Your task to perform on an android device: allow cookies in the chrome app Image 0: 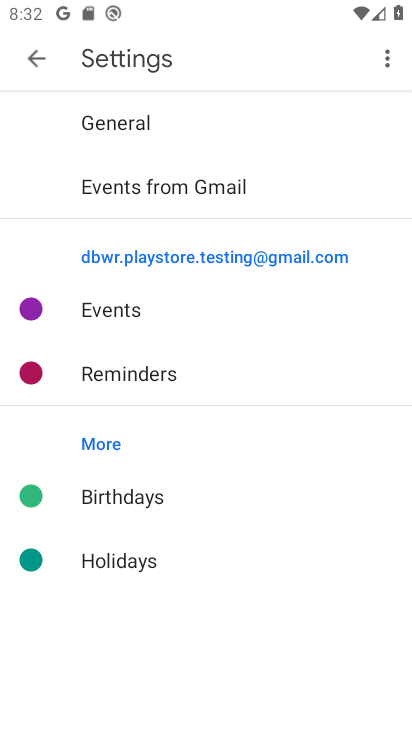
Step 0: click (317, 636)
Your task to perform on an android device: allow cookies in the chrome app Image 1: 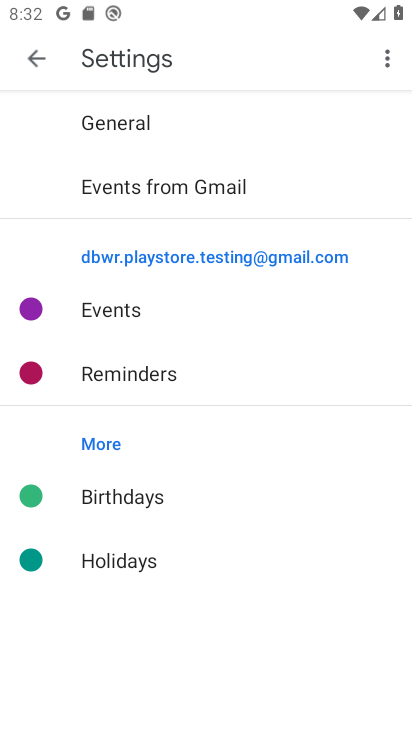
Step 1: press back button
Your task to perform on an android device: allow cookies in the chrome app Image 2: 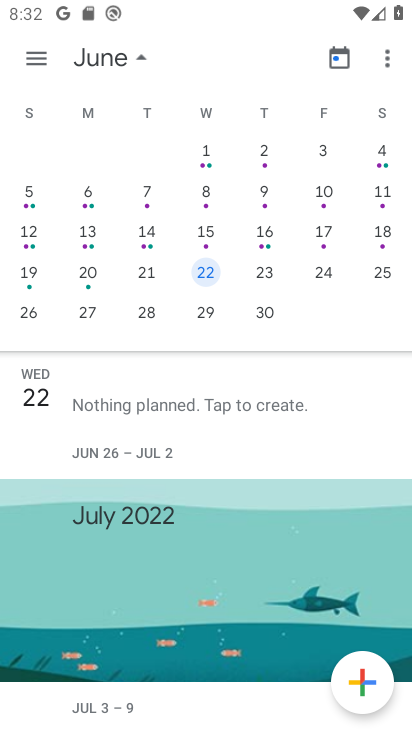
Step 2: press home button
Your task to perform on an android device: allow cookies in the chrome app Image 3: 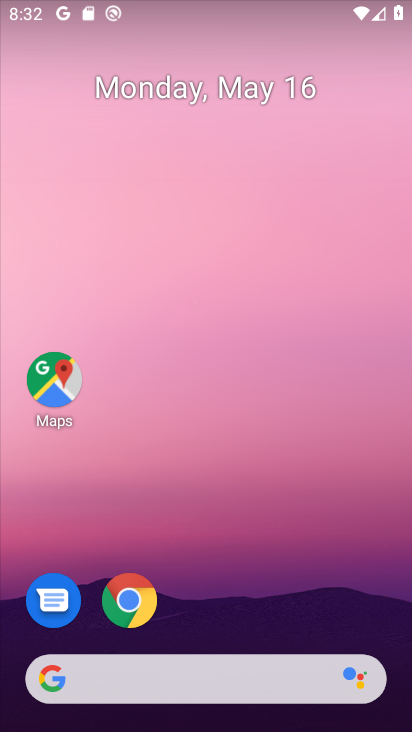
Step 3: drag from (205, 675) to (136, 90)
Your task to perform on an android device: allow cookies in the chrome app Image 4: 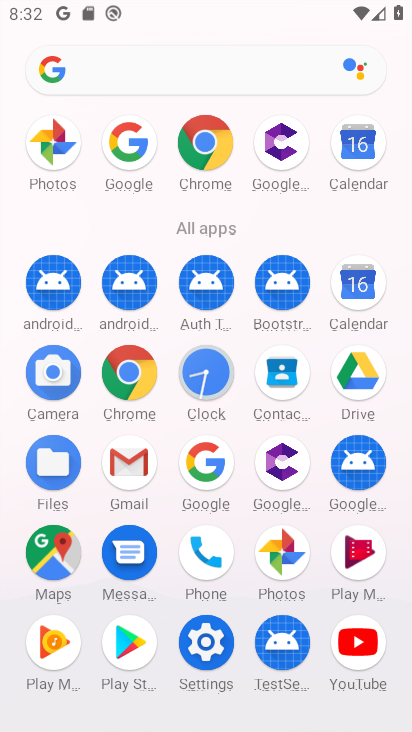
Step 4: click (200, 150)
Your task to perform on an android device: allow cookies in the chrome app Image 5: 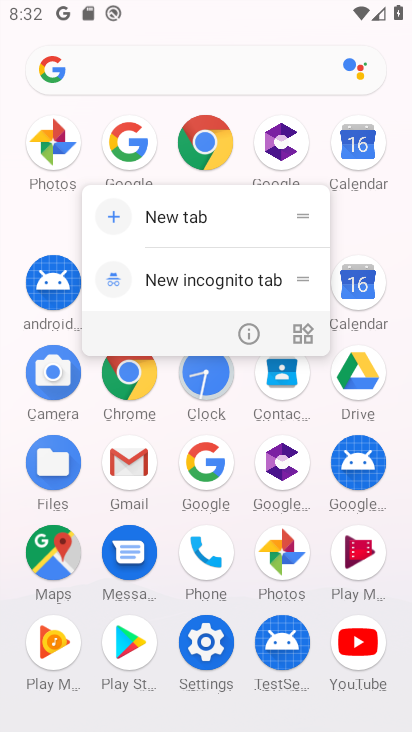
Step 5: click (200, 153)
Your task to perform on an android device: allow cookies in the chrome app Image 6: 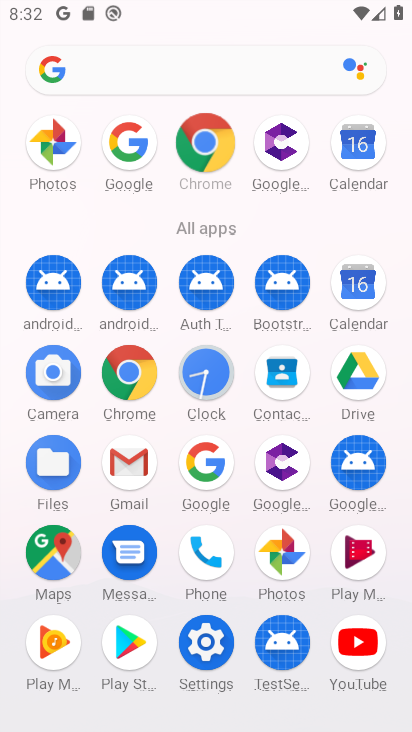
Step 6: click (200, 153)
Your task to perform on an android device: allow cookies in the chrome app Image 7: 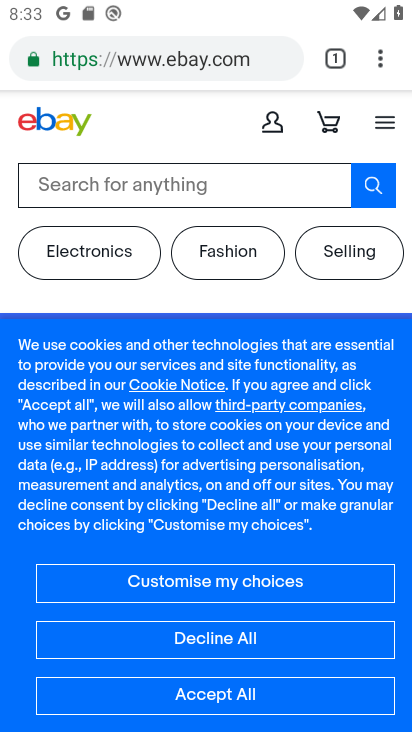
Step 7: click (382, 63)
Your task to perform on an android device: allow cookies in the chrome app Image 8: 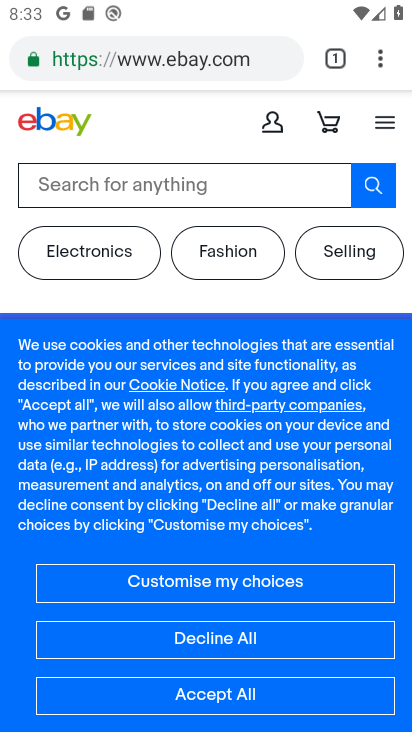
Step 8: click (382, 63)
Your task to perform on an android device: allow cookies in the chrome app Image 9: 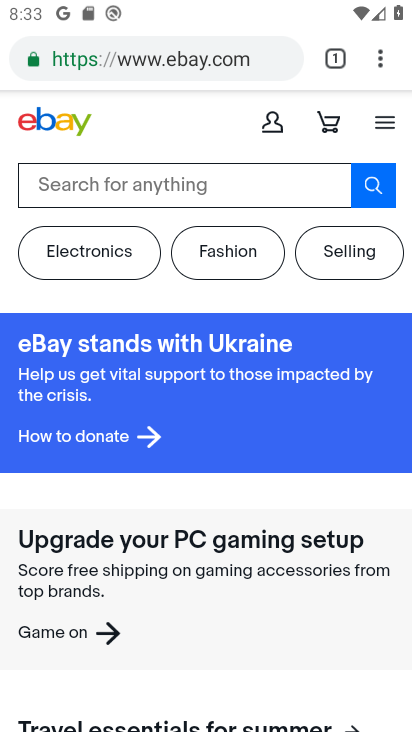
Step 9: click (377, 59)
Your task to perform on an android device: allow cookies in the chrome app Image 10: 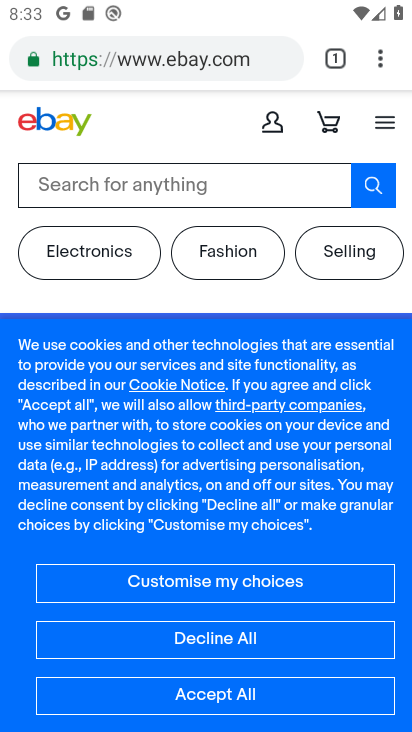
Step 10: drag from (377, 55) to (157, 16)
Your task to perform on an android device: allow cookies in the chrome app Image 11: 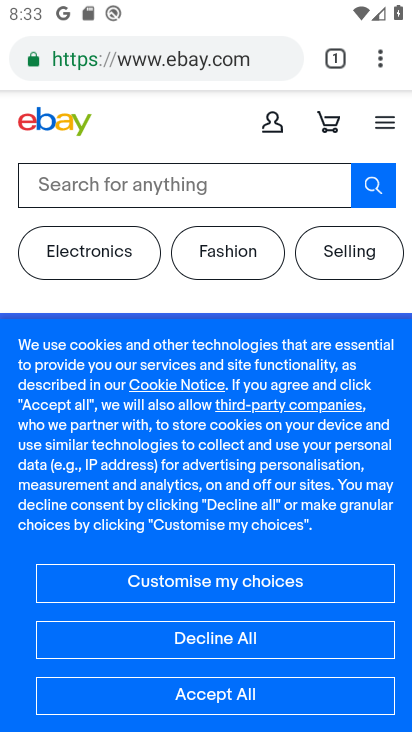
Step 11: drag from (242, 581) to (209, 188)
Your task to perform on an android device: allow cookies in the chrome app Image 12: 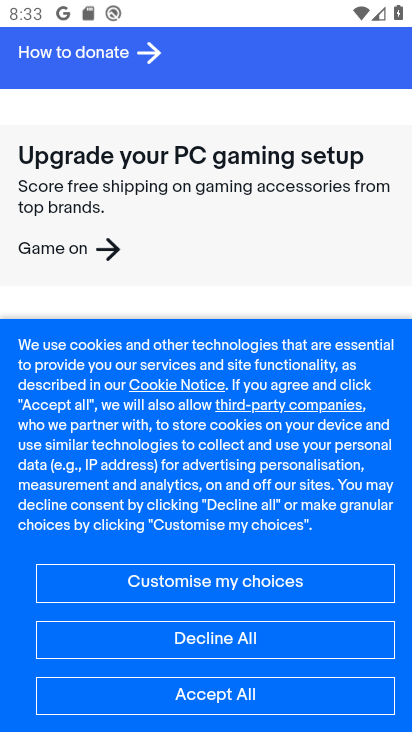
Step 12: click (372, 49)
Your task to perform on an android device: allow cookies in the chrome app Image 13: 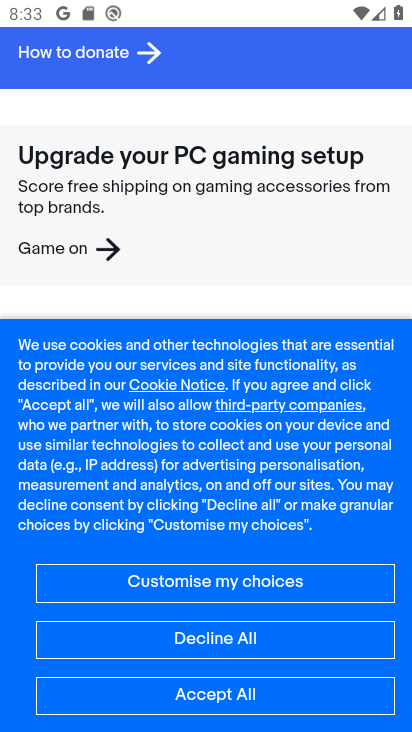
Step 13: click (311, 402)
Your task to perform on an android device: allow cookies in the chrome app Image 14: 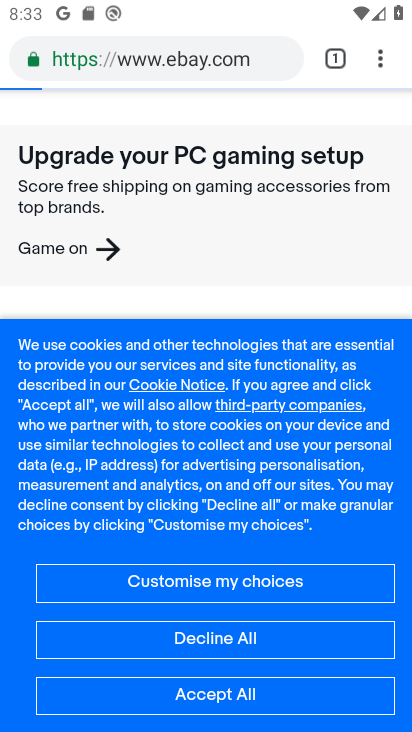
Step 14: click (236, 501)
Your task to perform on an android device: allow cookies in the chrome app Image 15: 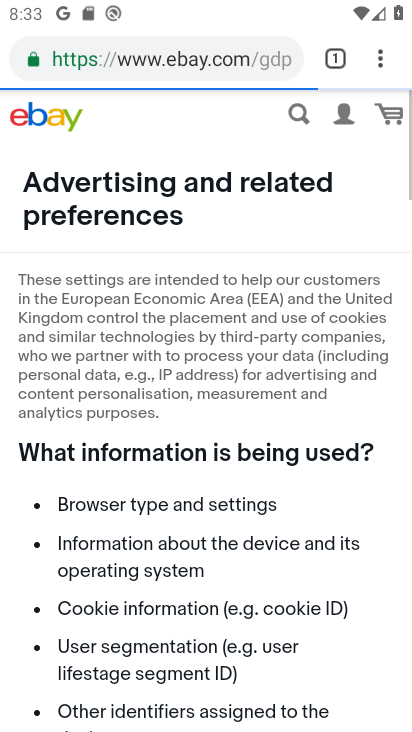
Step 15: click (374, 53)
Your task to perform on an android device: allow cookies in the chrome app Image 16: 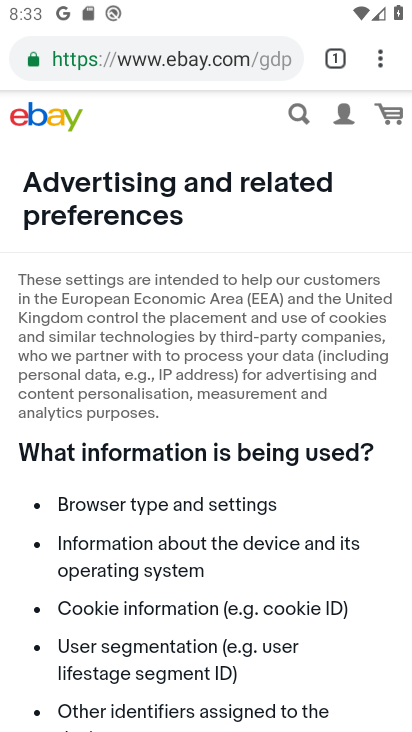
Step 16: drag from (383, 63) to (302, 439)
Your task to perform on an android device: allow cookies in the chrome app Image 17: 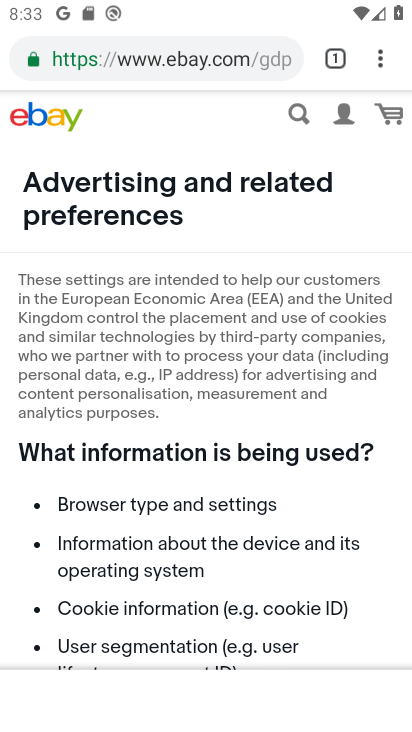
Step 17: drag from (292, 578) to (208, 3)
Your task to perform on an android device: allow cookies in the chrome app Image 18: 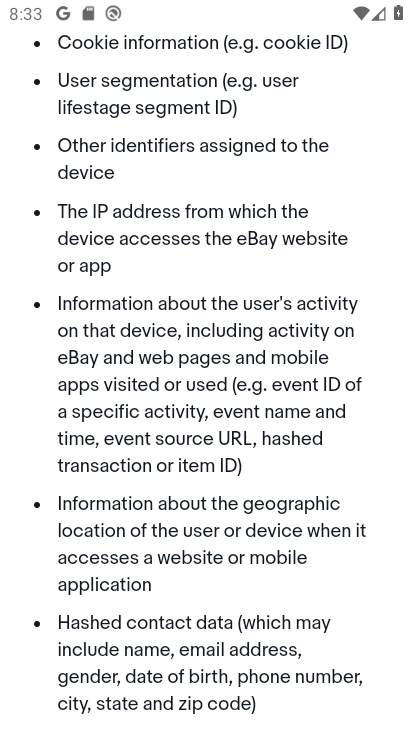
Step 18: press back button
Your task to perform on an android device: allow cookies in the chrome app Image 19: 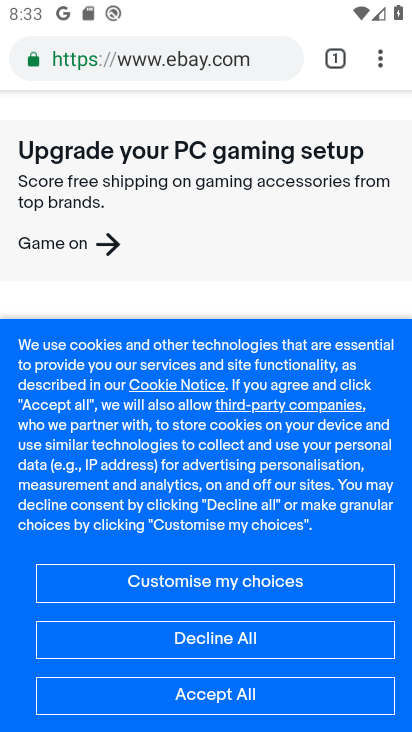
Step 19: click (387, 50)
Your task to perform on an android device: allow cookies in the chrome app Image 20: 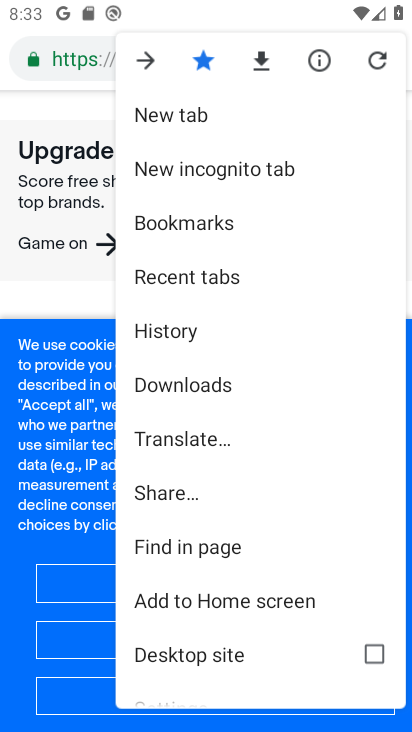
Step 20: drag from (168, 594) to (160, 135)
Your task to perform on an android device: allow cookies in the chrome app Image 21: 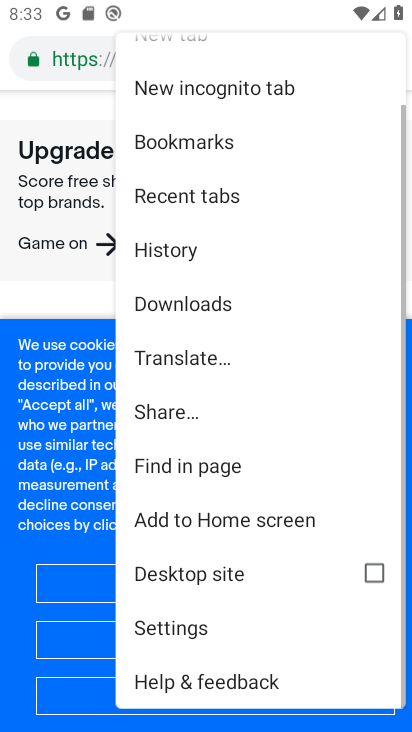
Step 21: click (169, 617)
Your task to perform on an android device: allow cookies in the chrome app Image 22: 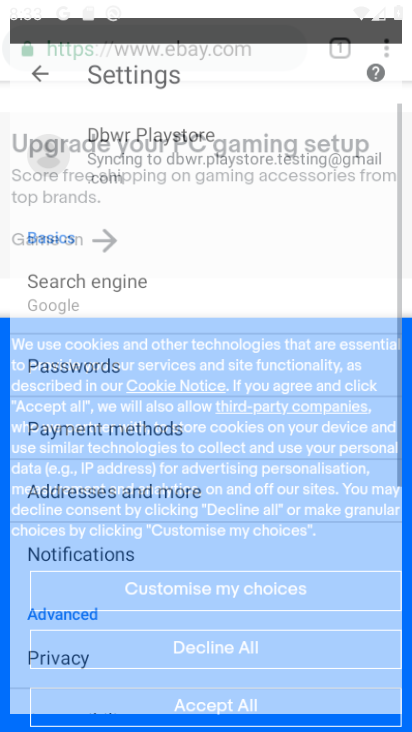
Step 22: click (170, 617)
Your task to perform on an android device: allow cookies in the chrome app Image 23: 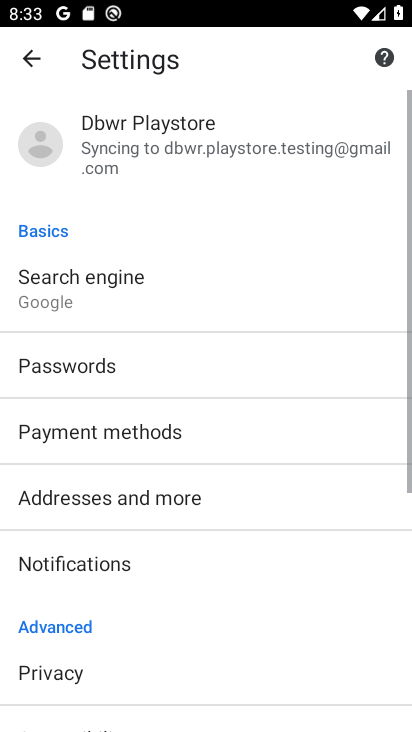
Step 23: click (170, 617)
Your task to perform on an android device: allow cookies in the chrome app Image 24: 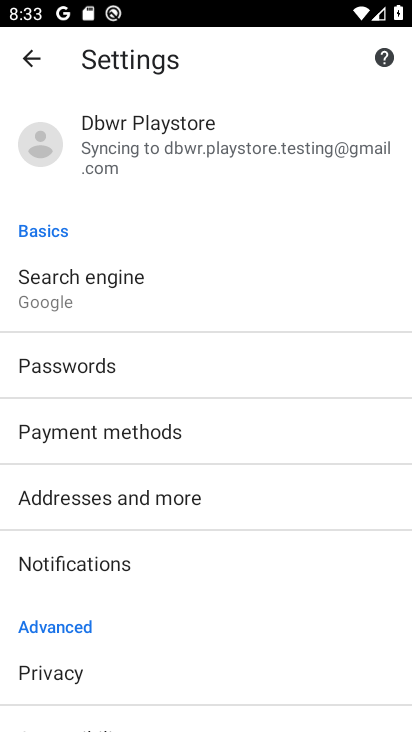
Step 24: drag from (238, 490) to (343, 153)
Your task to perform on an android device: allow cookies in the chrome app Image 25: 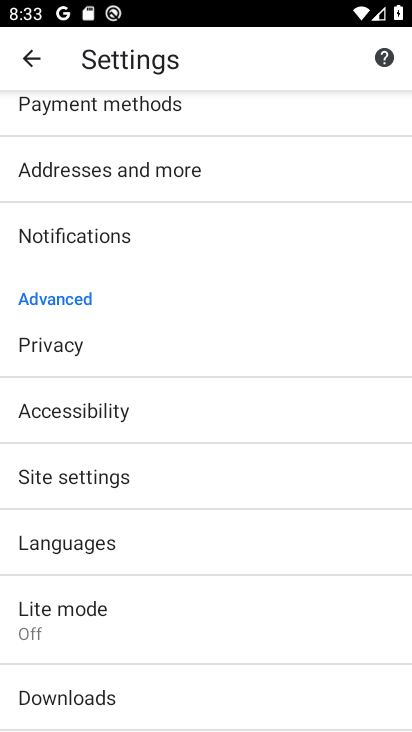
Step 25: click (62, 453)
Your task to perform on an android device: allow cookies in the chrome app Image 26: 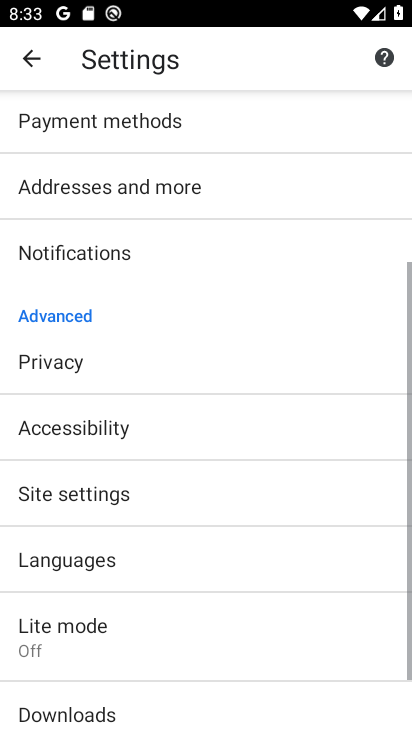
Step 26: click (54, 474)
Your task to perform on an android device: allow cookies in the chrome app Image 27: 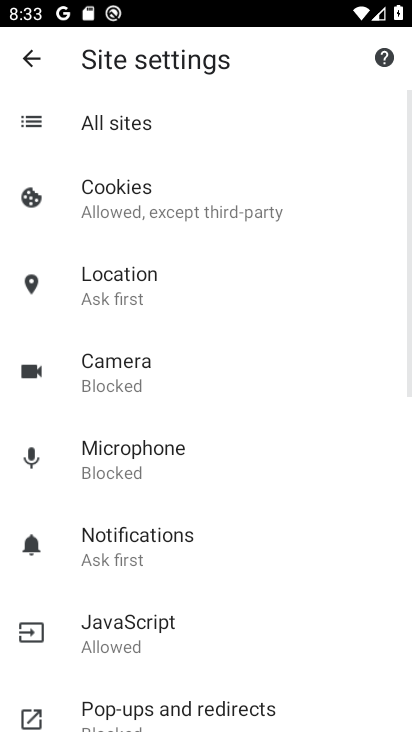
Step 27: click (123, 207)
Your task to perform on an android device: allow cookies in the chrome app Image 28: 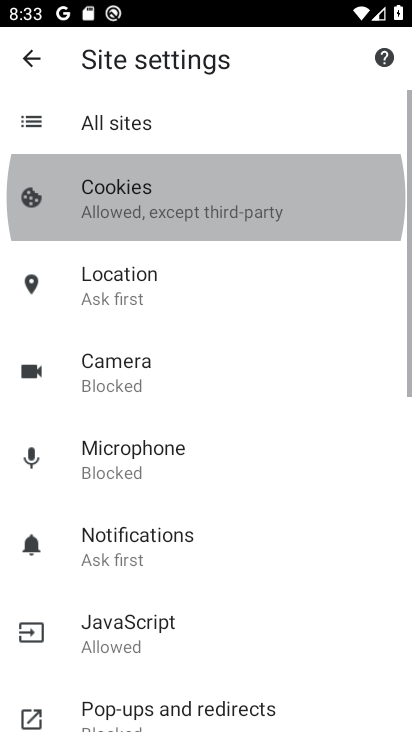
Step 28: click (124, 210)
Your task to perform on an android device: allow cookies in the chrome app Image 29: 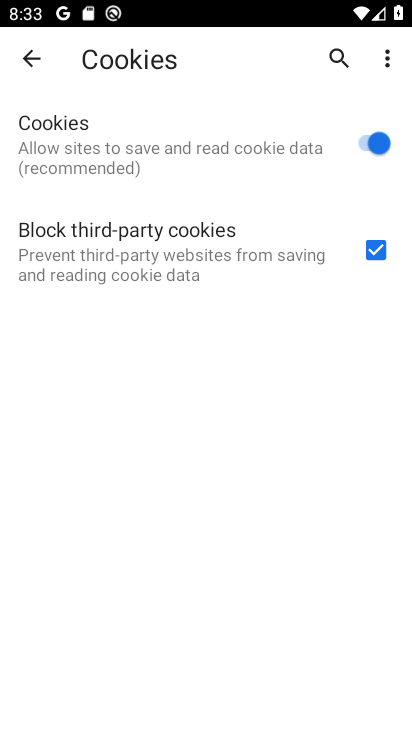
Step 29: task complete